Your task to perform on an android device: What's on the menu at Burger King? Image 0: 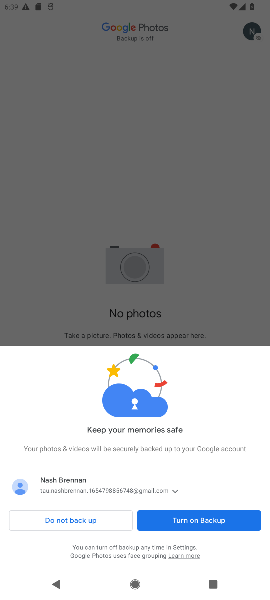
Step 0: press home button
Your task to perform on an android device: What's on the menu at Burger King? Image 1: 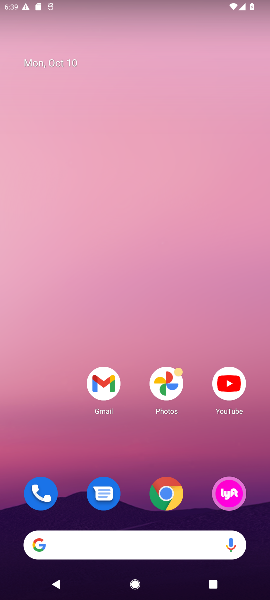
Step 1: drag from (118, 424) to (165, 43)
Your task to perform on an android device: What's on the menu at Burger King? Image 2: 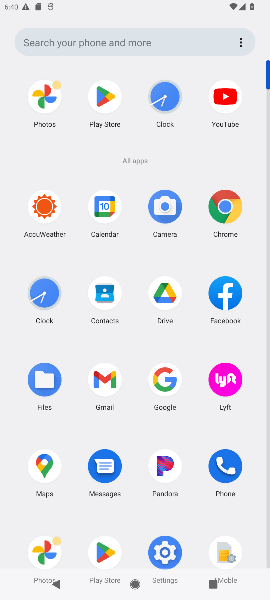
Step 2: click (160, 396)
Your task to perform on an android device: What's on the menu at Burger King? Image 3: 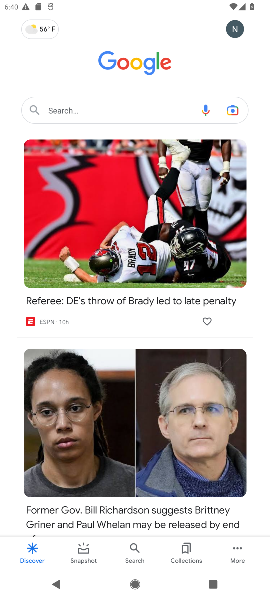
Step 3: click (85, 108)
Your task to perform on an android device: What's on the menu at Burger King? Image 4: 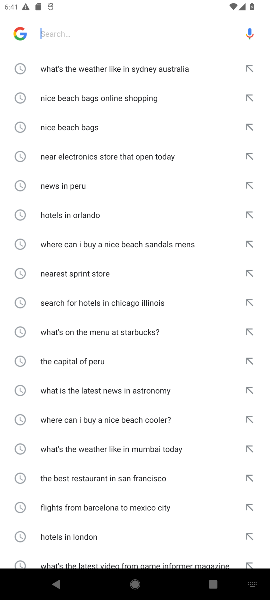
Step 4: type "What's on the menu at Burger King?"
Your task to perform on an android device: What's on the menu at Burger King? Image 5: 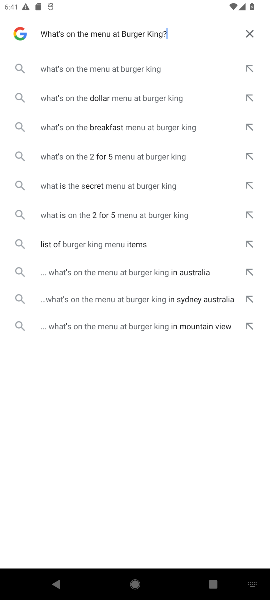
Step 5: click (120, 68)
Your task to perform on an android device: What's on the menu at Burger King? Image 6: 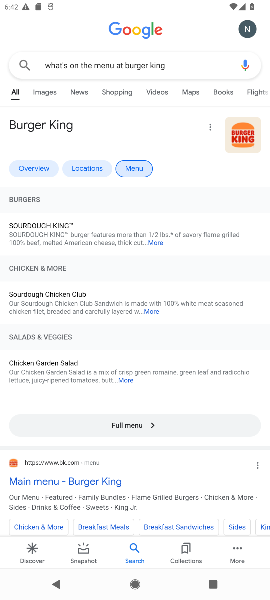
Step 6: task complete